Your task to perform on an android device: Go to Google maps Image 0: 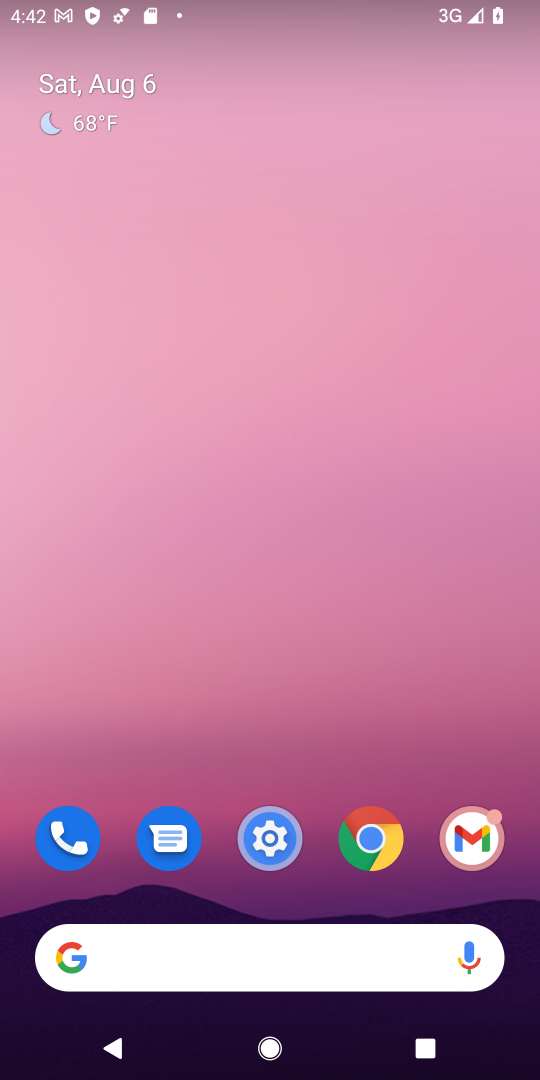
Step 0: drag from (163, 737) to (476, 71)
Your task to perform on an android device: Go to Google maps Image 1: 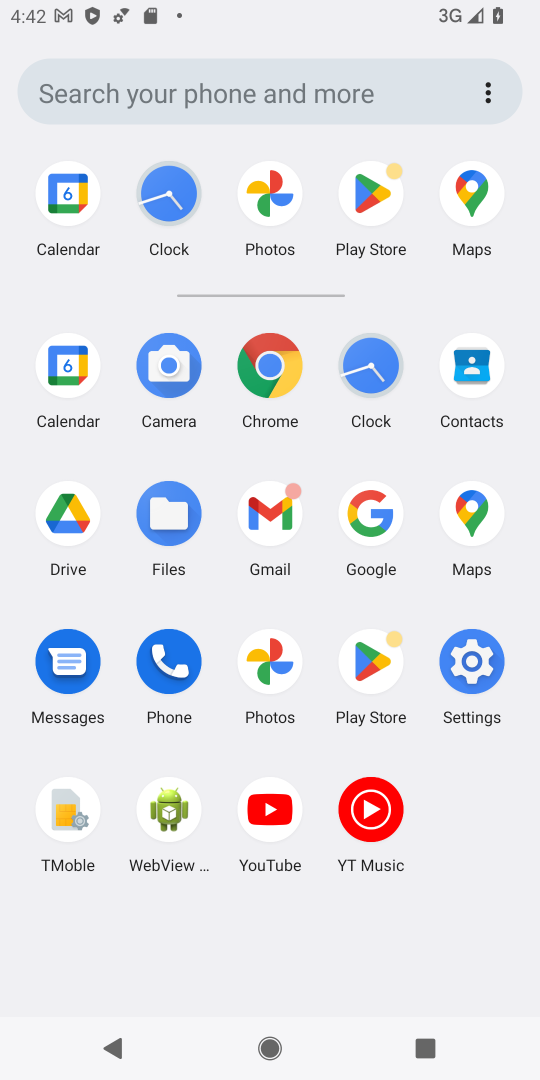
Step 1: click (467, 178)
Your task to perform on an android device: Go to Google maps Image 2: 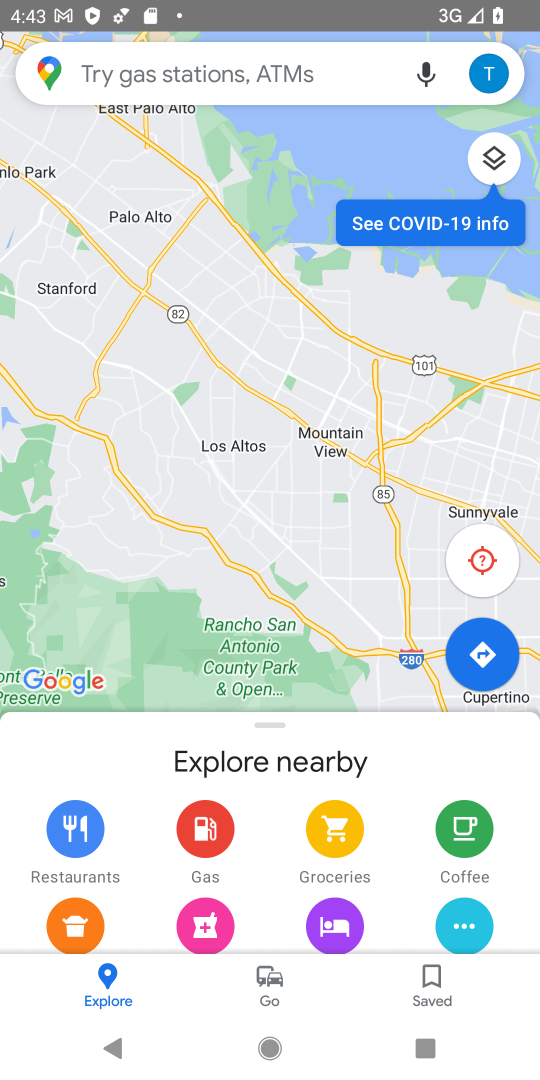
Step 2: task complete